Your task to perform on an android device: When is my next meeting? Image 0: 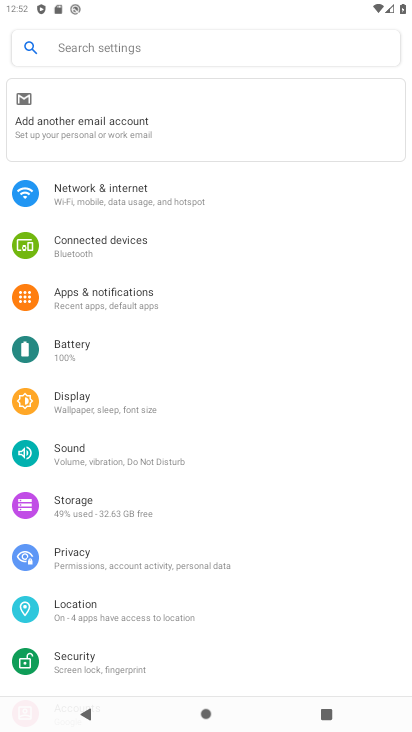
Step 0: press home button
Your task to perform on an android device: When is my next meeting? Image 1: 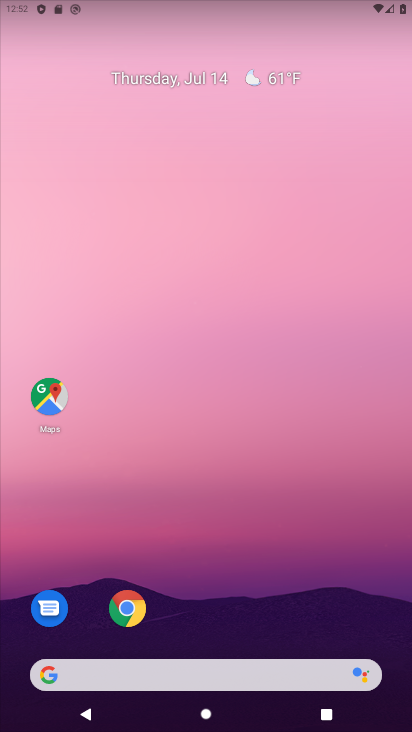
Step 1: drag from (376, 600) to (369, 192)
Your task to perform on an android device: When is my next meeting? Image 2: 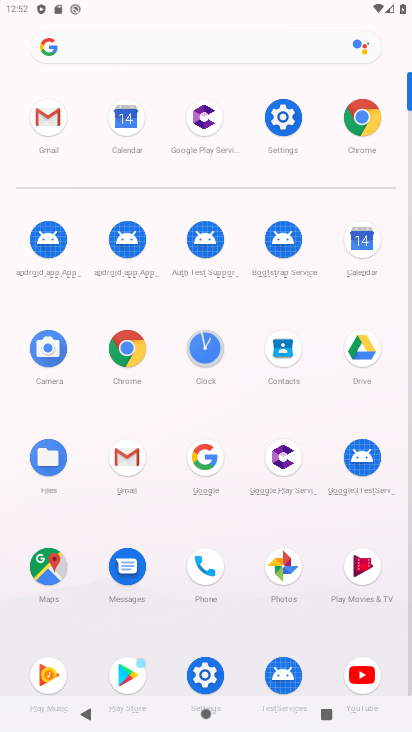
Step 2: click (358, 245)
Your task to perform on an android device: When is my next meeting? Image 3: 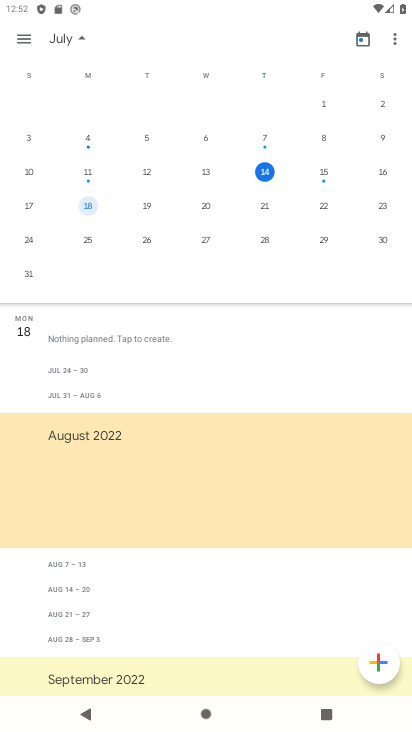
Step 3: task complete